Your task to perform on an android device: find photos in the google photos app Image 0: 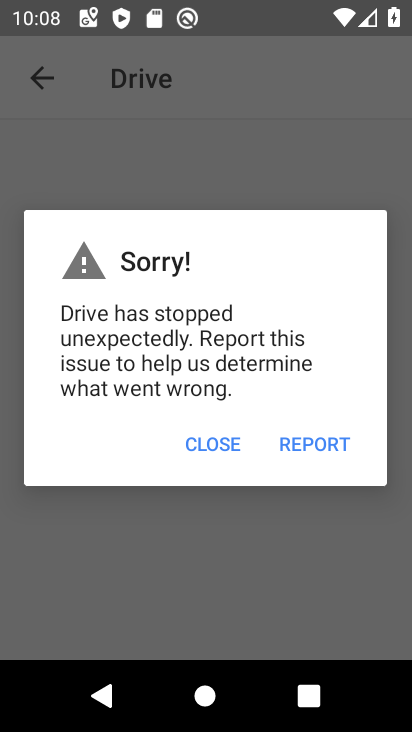
Step 0: press home button
Your task to perform on an android device: find photos in the google photos app Image 1: 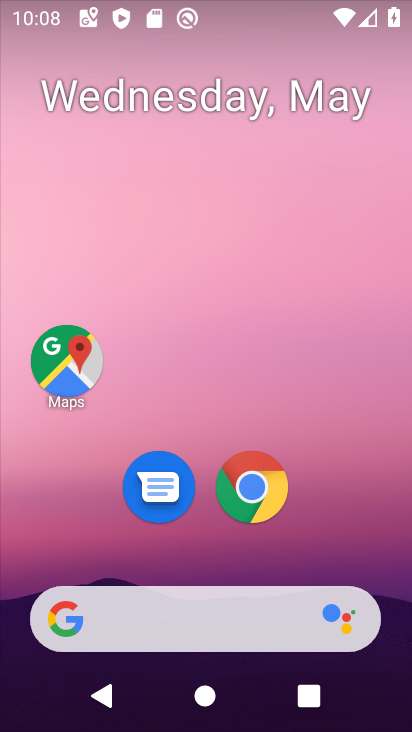
Step 1: drag from (180, 558) to (345, 9)
Your task to perform on an android device: find photos in the google photos app Image 2: 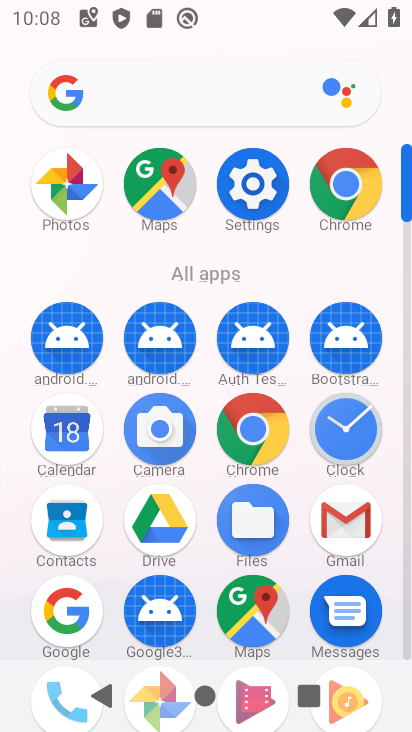
Step 2: drag from (205, 638) to (154, 95)
Your task to perform on an android device: find photos in the google photos app Image 3: 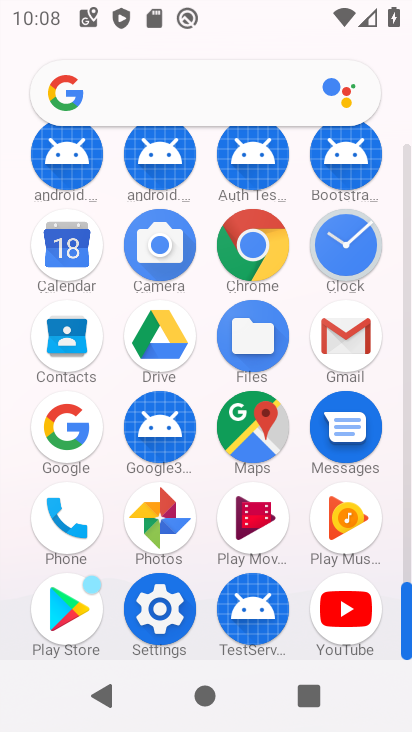
Step 3: click (164, 528)
Your task to perform on an android device: find photos in the google photos app Image 4: 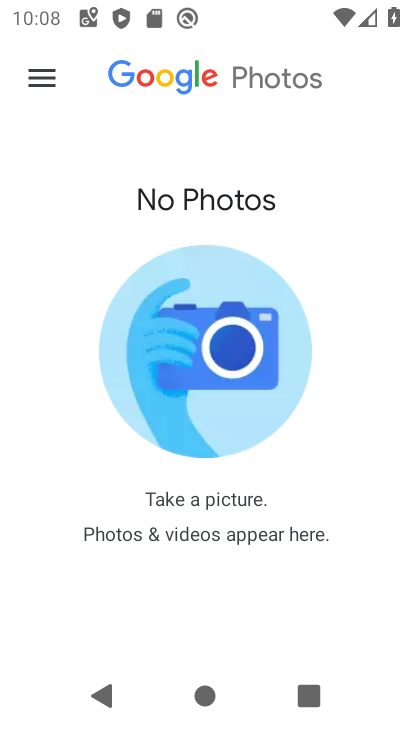
Step 4: click (36, 71)
Your task to perform on an android device: find photos in the google photos app Image 5: 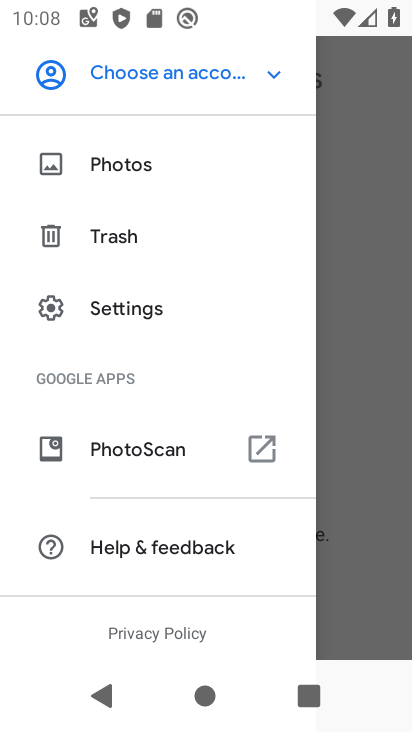
Step 5: click (108, 76)
Your task to perform on an android device: find photos in the google photos app Image 6: 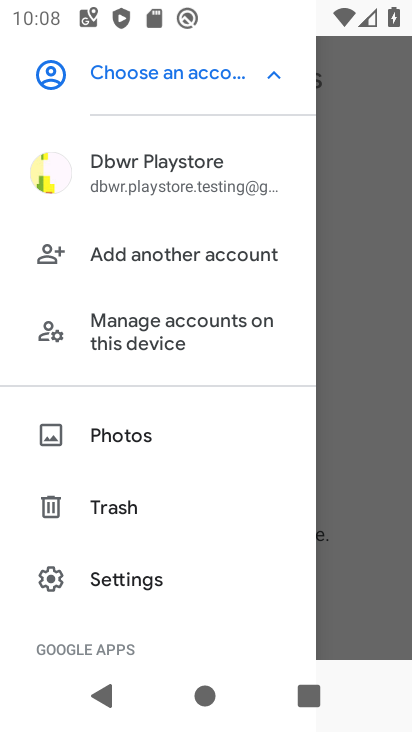
Step 6: click (187, 75)
Your task to perform on an android device: find photos in the google photos app Image 7: 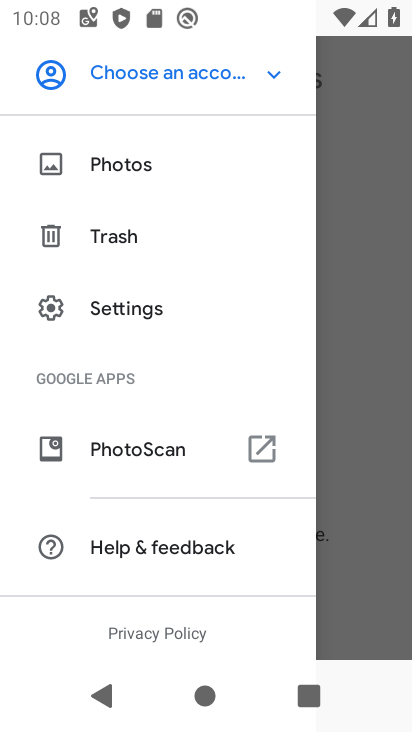
Step 7: click (183, 75)
Your task to perform on an android device: find photos in the google photos app Image 8: 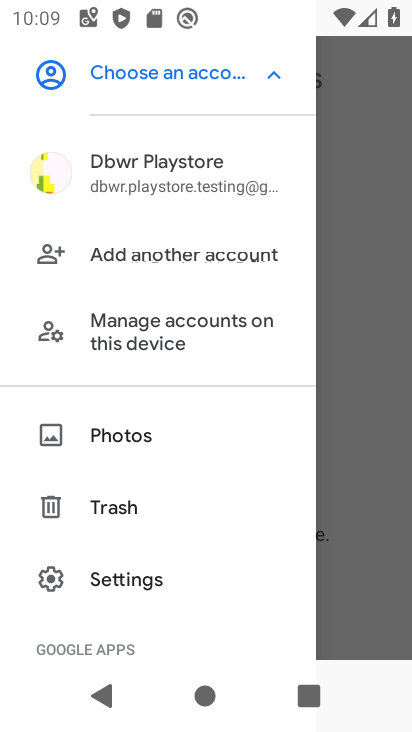
Step 8: click (111, 166)
Your task to perform on an android device: find photos in the google photos app Image 9: 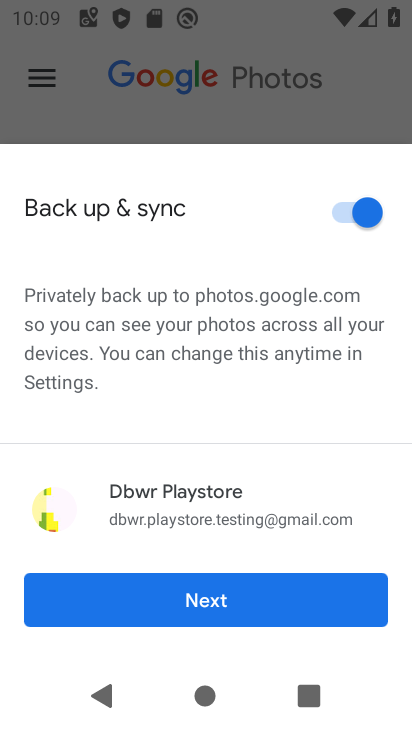
Step 9: click (185, 608)
Your task to perform on an android device: find photos in the google photos app Image 10: 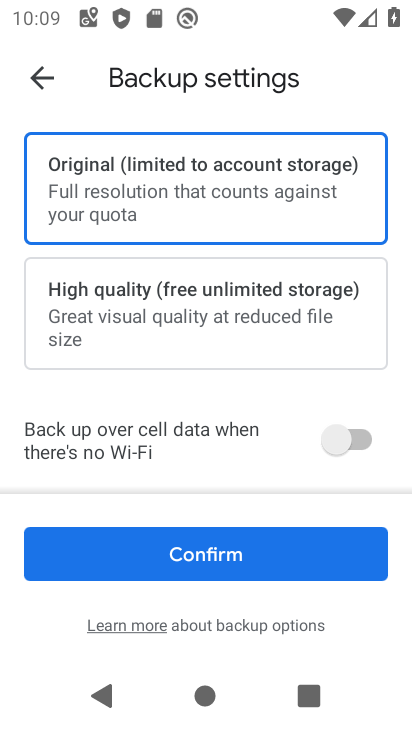
Step 10: click (185, 607)
Your task to perform on an android device: find photos in the google photos app Image 11: 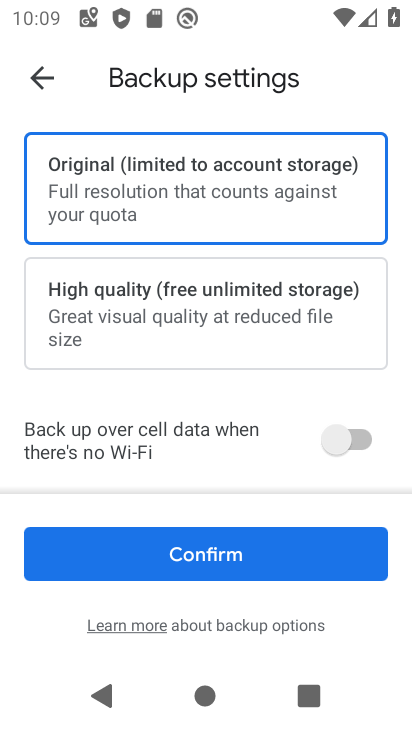
Step 11: click (183, 579)
Your task to perform on an android device: find photos in the google photos app Image 12: 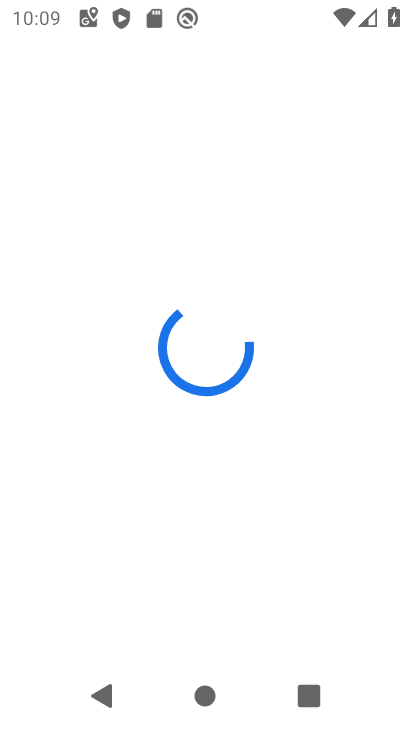
Step 12: click (175, 554)
Your task to perform on an android device: find photos in the google photos app Image 13: 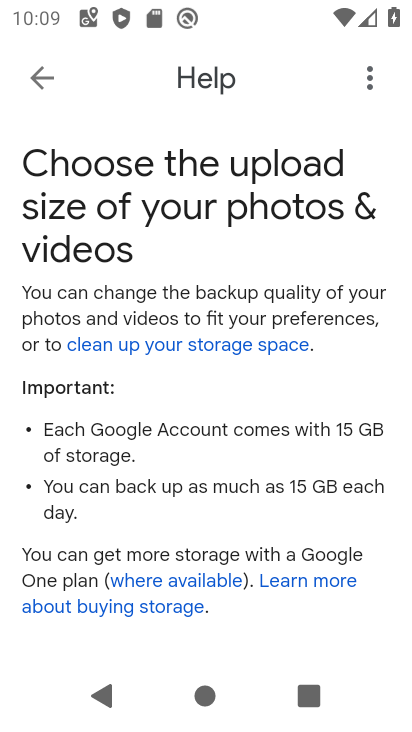
Step 13: drag from (319, 522) to (274, 189)
Your task to perform on an android device: find photos in the google photos app Image 14: 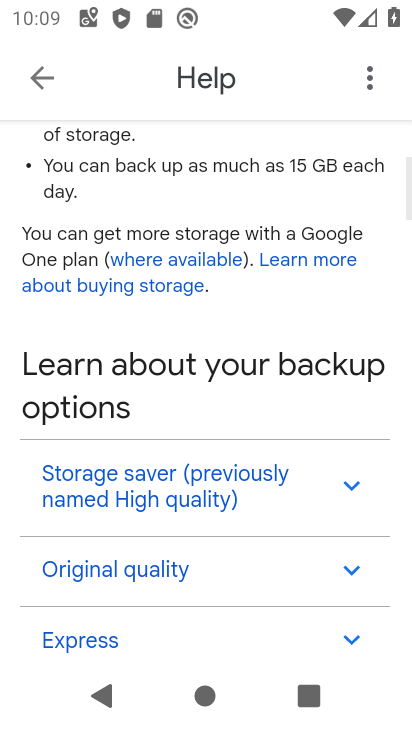
Step 14: click (27, 75)
Your task to perform on an android device: find photos in the google photos app Image 15: 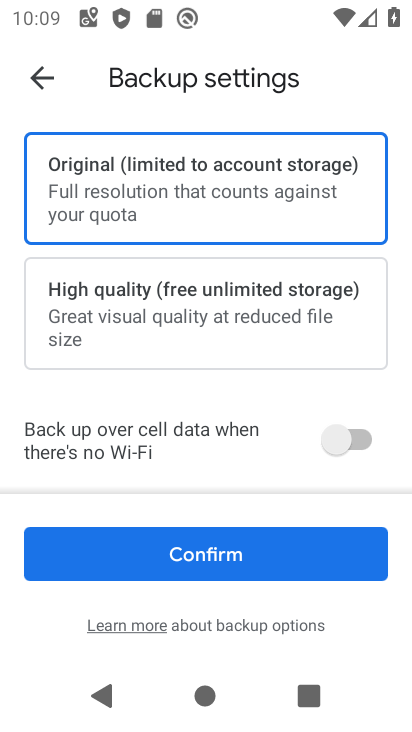
Step 15: click (248, 560)
Your task to perform on an android device: find photos in the google photos app Image 16: 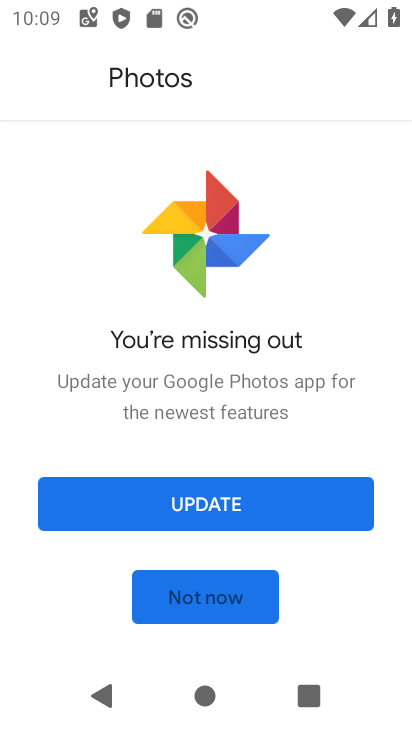
Step 16: click (225, 604)
Your task to perform on an android device: find photos in the google photos app Image 17: 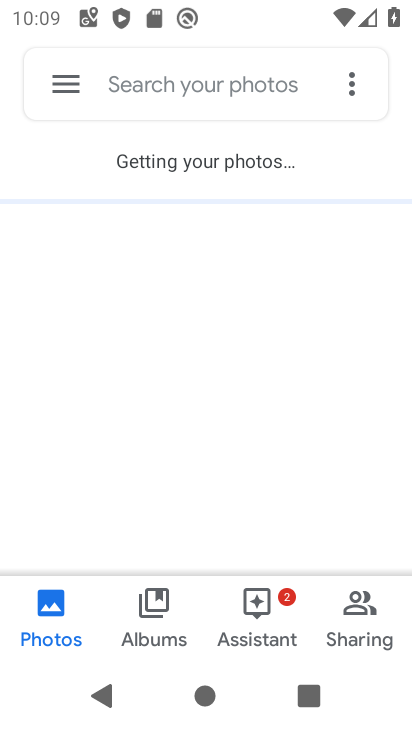
Step 17: task complete